Your task to perform on an android device: Do I have any events this weekend? Image 0: 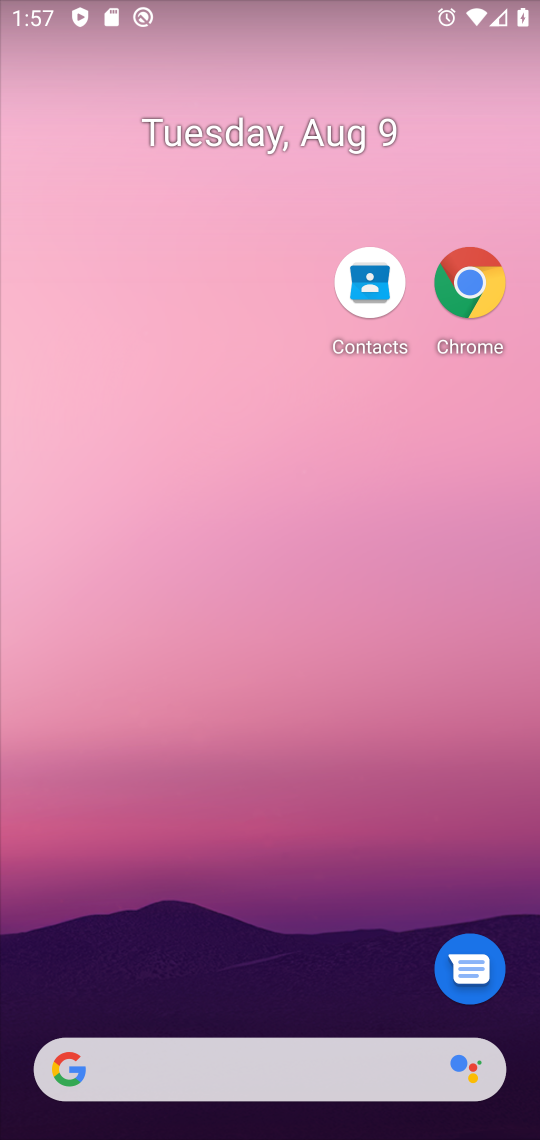
Step 0: drag from (301, 633) to (329, 184)
Your task to perform on an android device: Do I have any events this weekend? Image 1: 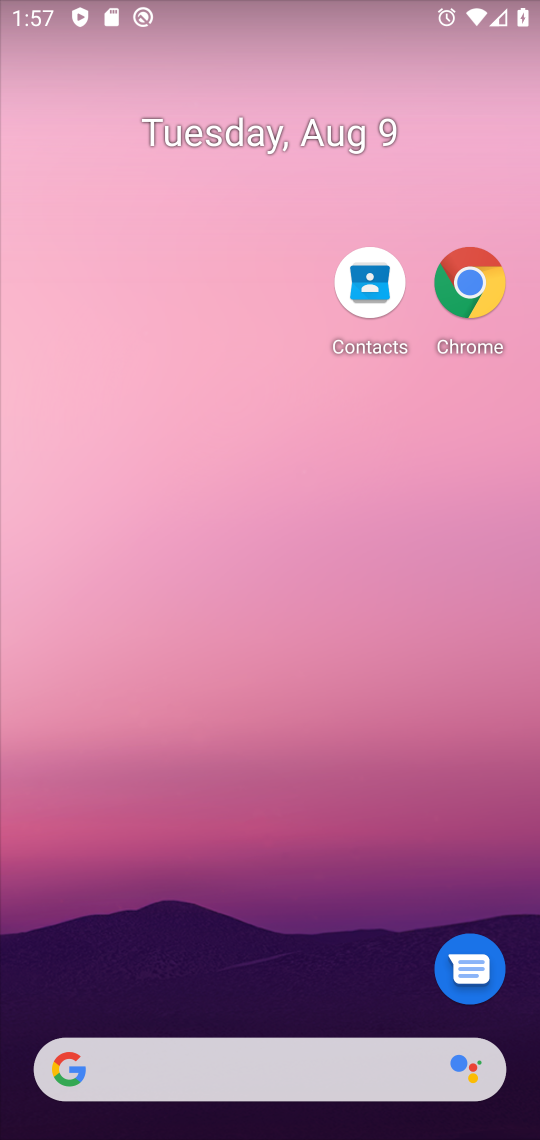
Step 1: drag from (306, 826) to (390, 169)
Your task to perform on an android device: Do I have any events this weekend? Image 2: 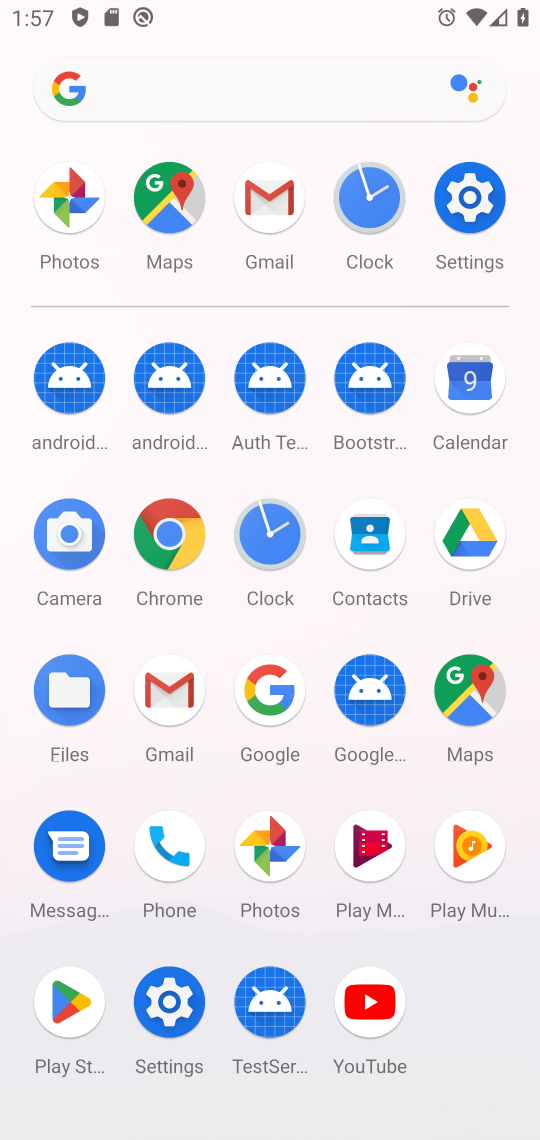
Step 2: click (481, 389)
Your task to perform on an android device: Do I have any events this weekend? Image 3: 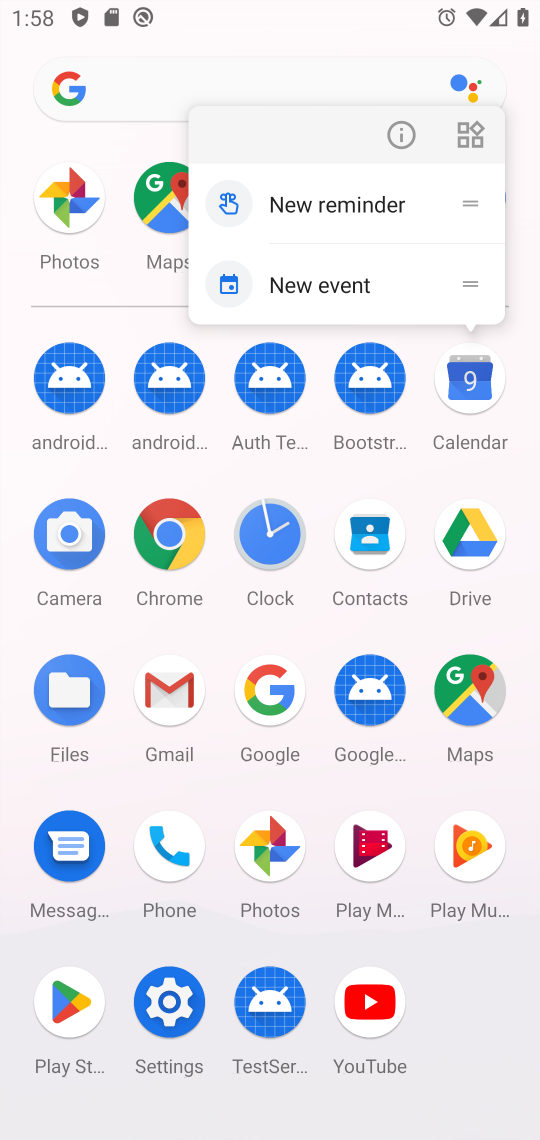
Step 3: click (407, 128)
Your task to perform on an android device: Do I have any events this weekend? Image 4: 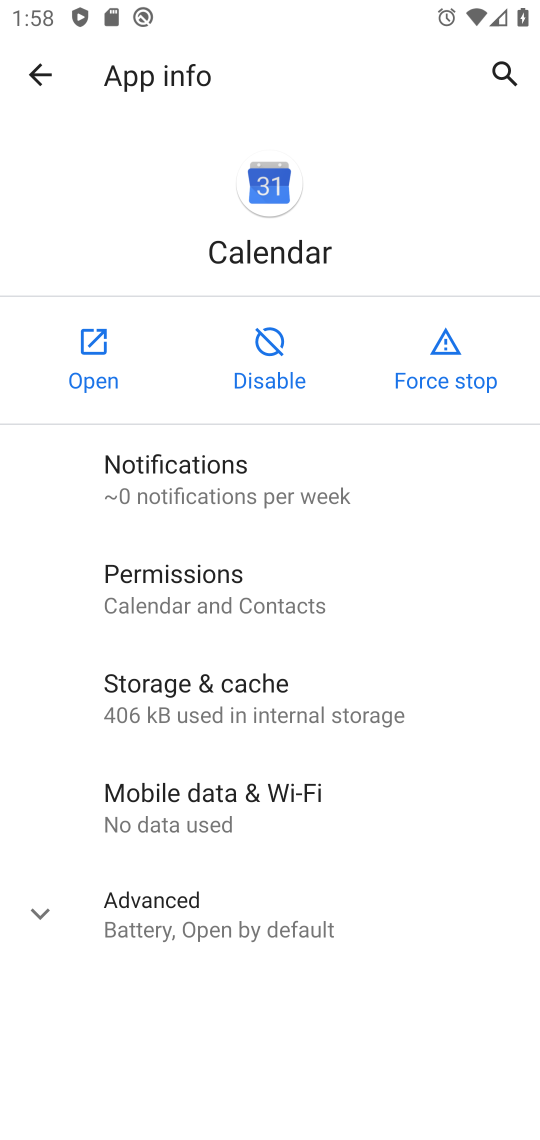
Step 4: click (99, 365)
Your task to perform on an android device: Do I have any events this weekend? Image 5: 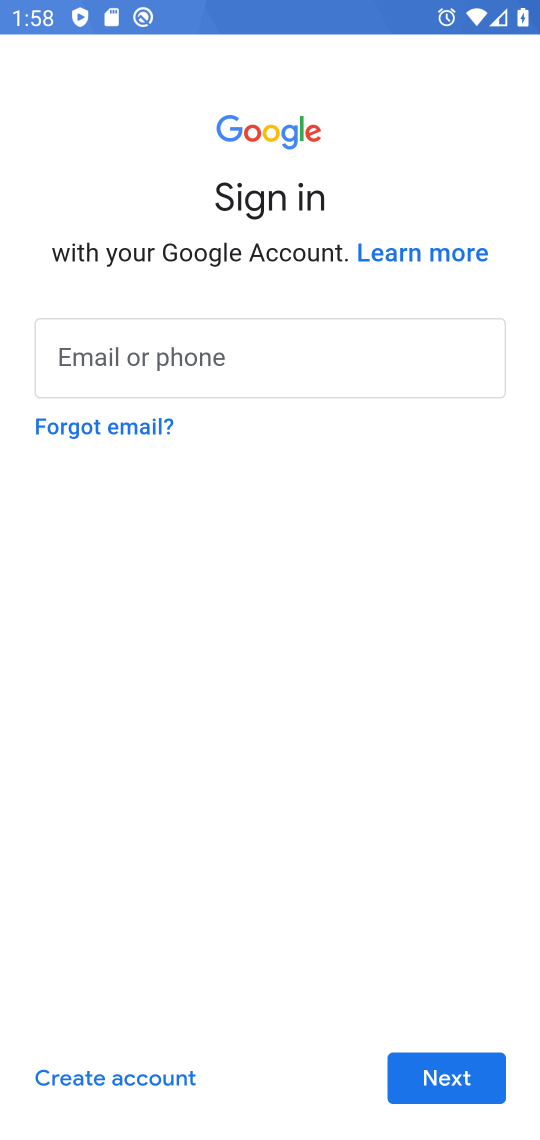
Step 5: drag from (130, 845) to (168, 494)
Your task to perform on an android device: Do I have any events this weekend? Image 6: 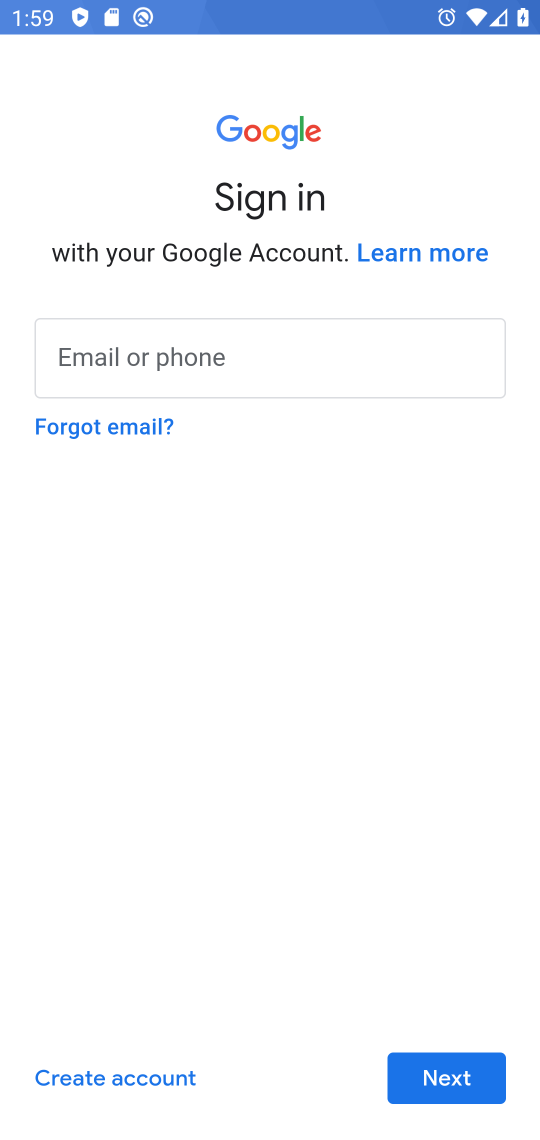
Step 6: press home button
Your task to perform on an android device: Do I have any events this weekend? Image 7: 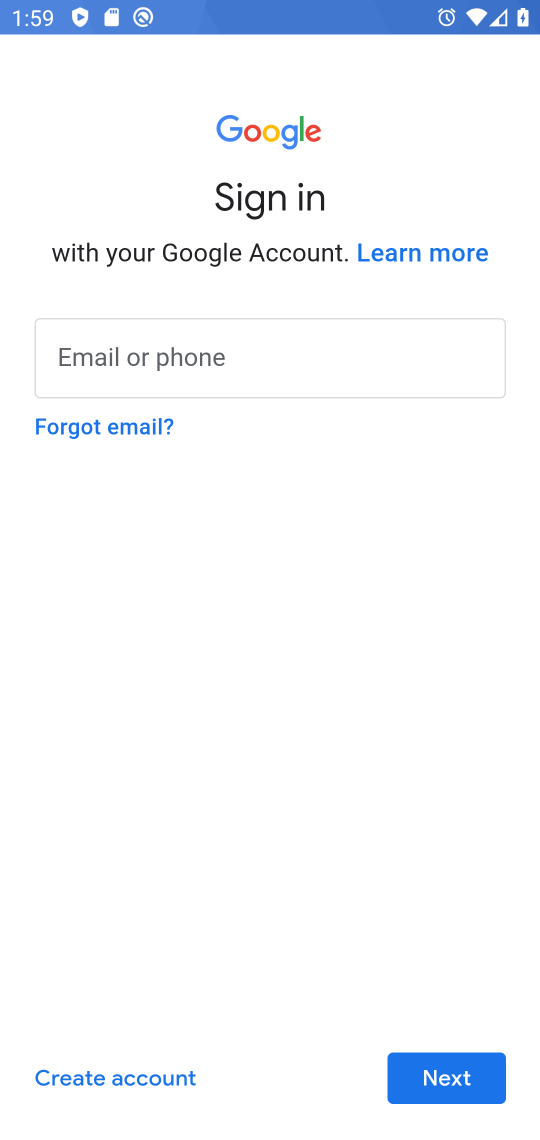
Step 7: press home button
Your task to perform on an android device: Do I have any events this weekend? Image 8: 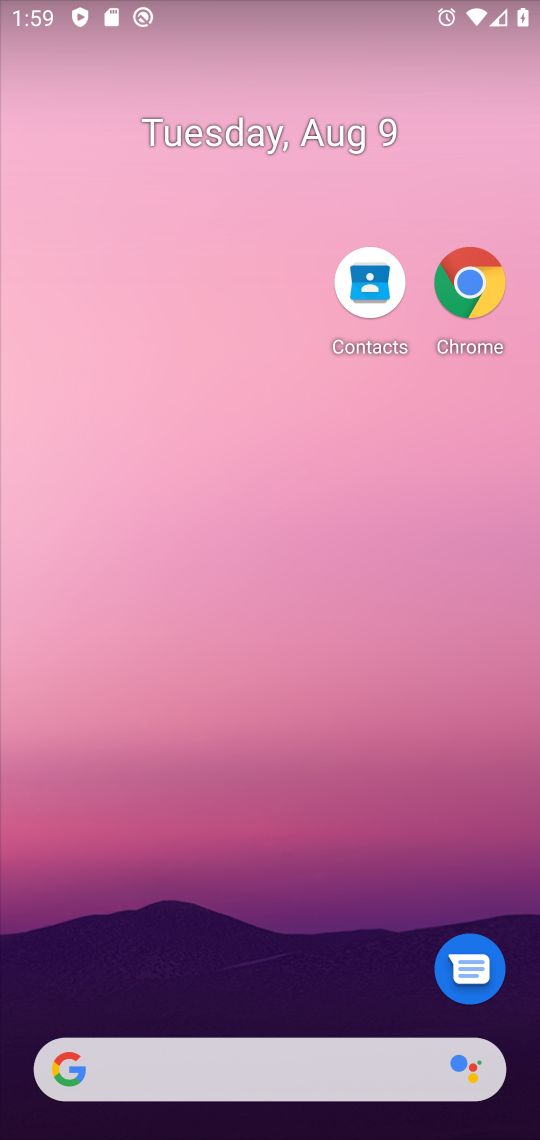
Step 8: drag from (377, 864) to (488, 172)
Your task to perform on an android device: Do I have any events this weekend? Image 9: 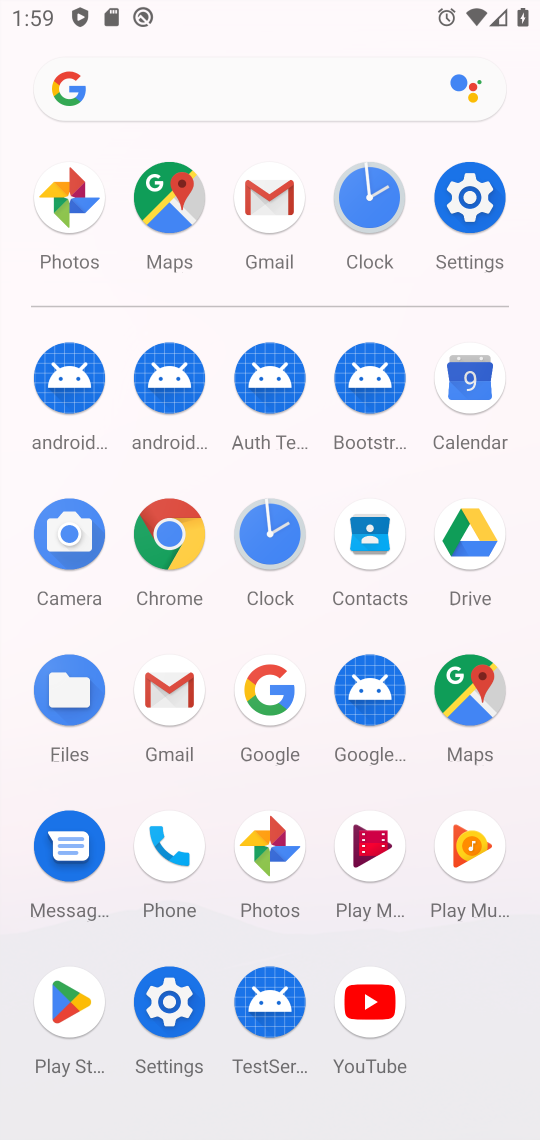
Step 9: click (472, 398)
Your task to perform on an android device: Do I have any events this weekend? Image 10: 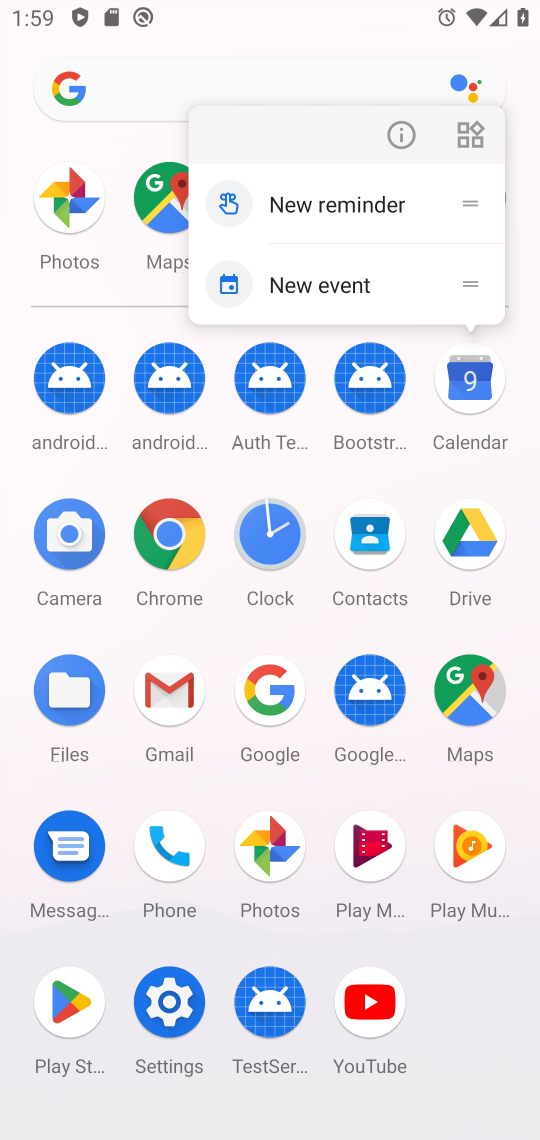
Step 10: click (404, 146)
Your task to perform on an android device: Do I have any events this weekend? Image 11: 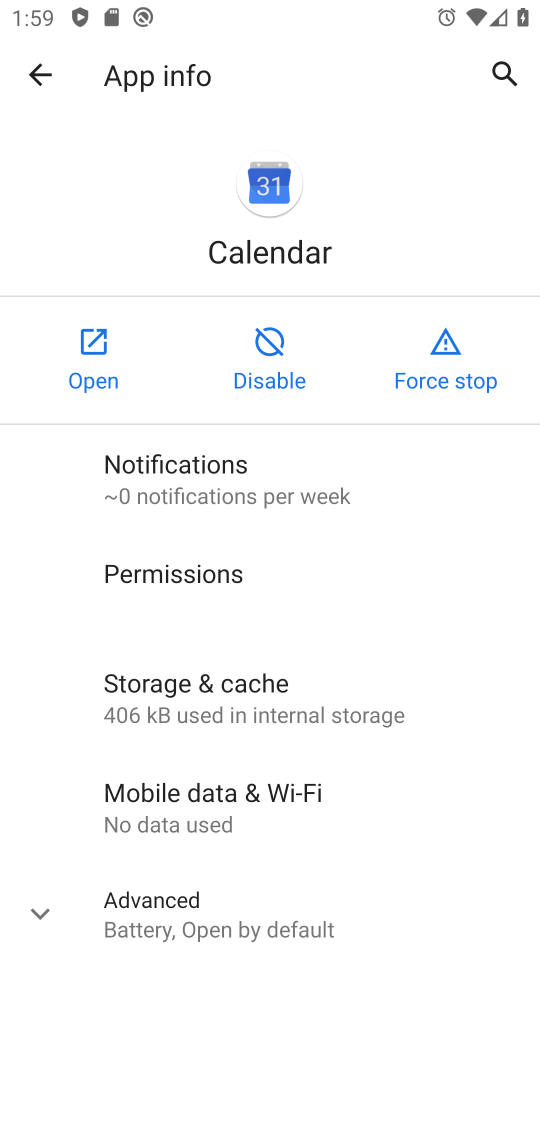
Step 11: click (104, 347)
Your task to perform on an android device: Do I have any events this weekend? Image 12: 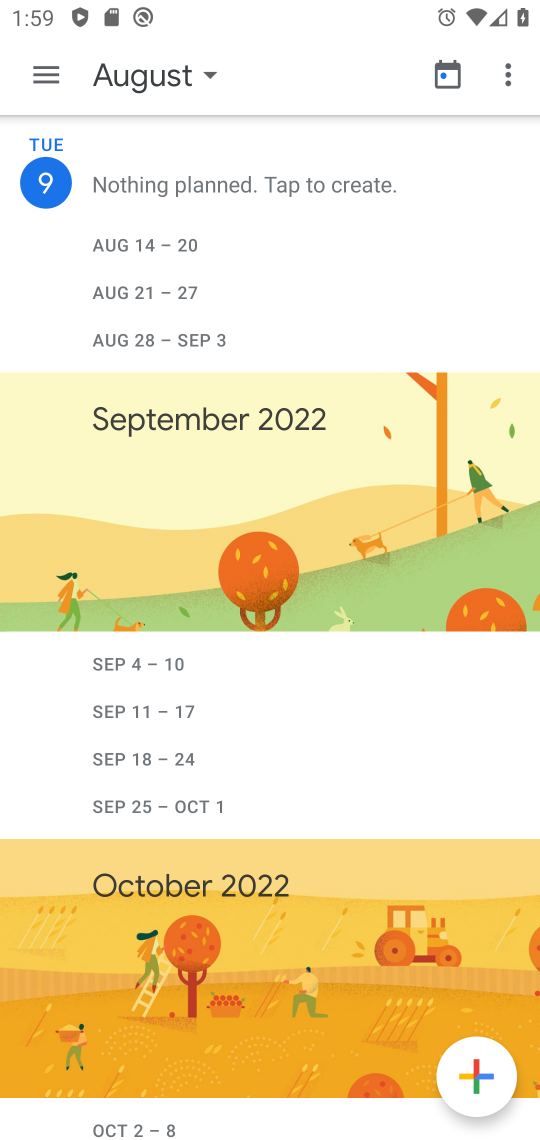
Step 12: click (188, 83)
Your task to perform on an android device: Do I have any events this weekend? Image 13: 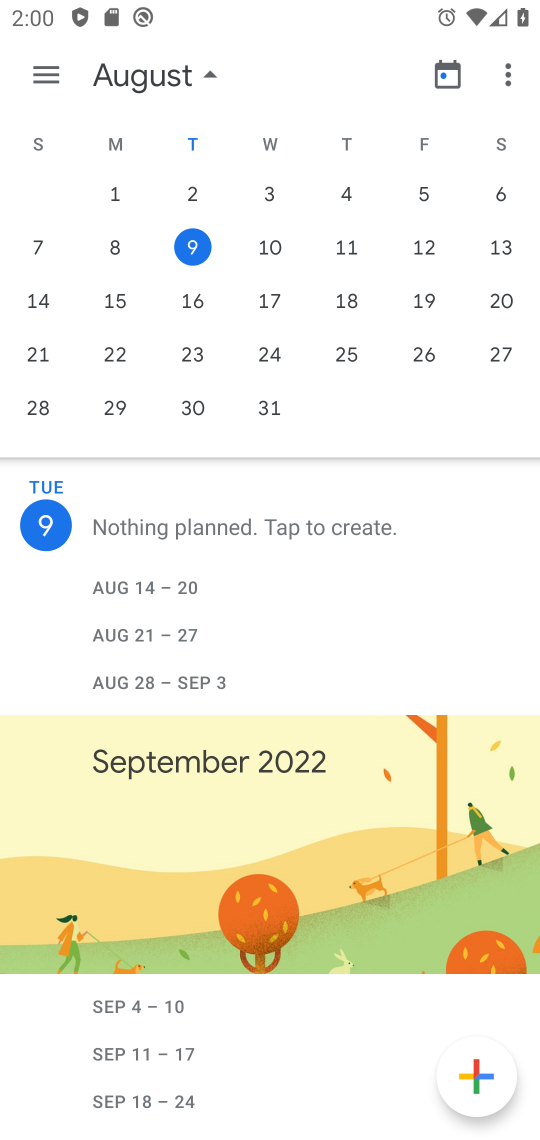
Step 13: click (421, 240)
Your task to perform on an android device: Do I have any events this weekend? Image 14: 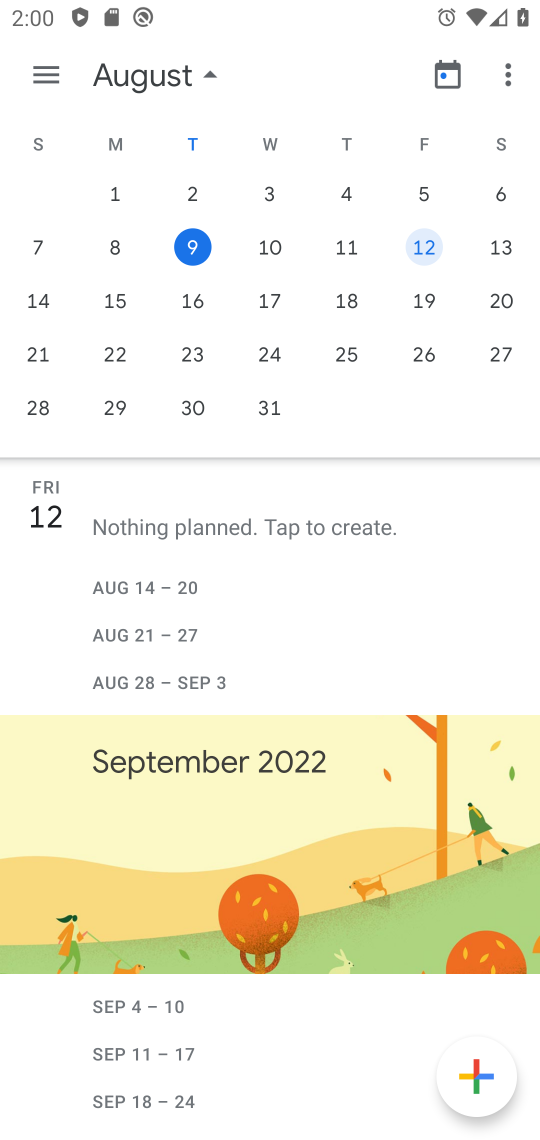
Step 14: task complete